Your task to perform on an android device: What's the weather today? Image 0: 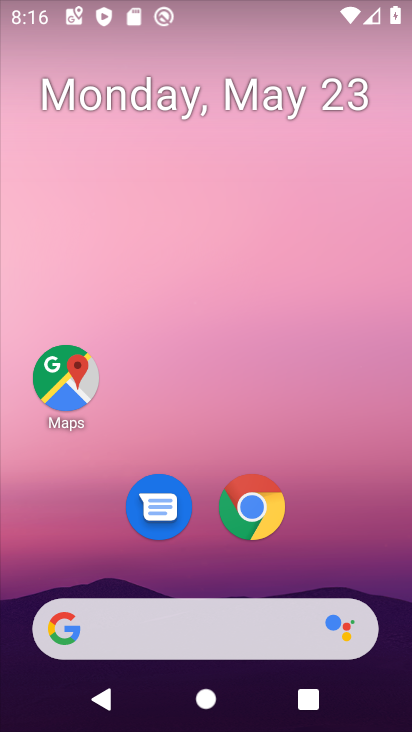
Step 0: drag from (402, 559) to (336, 131)
Your task to perform on an android device: What's the weather today? Image 1: 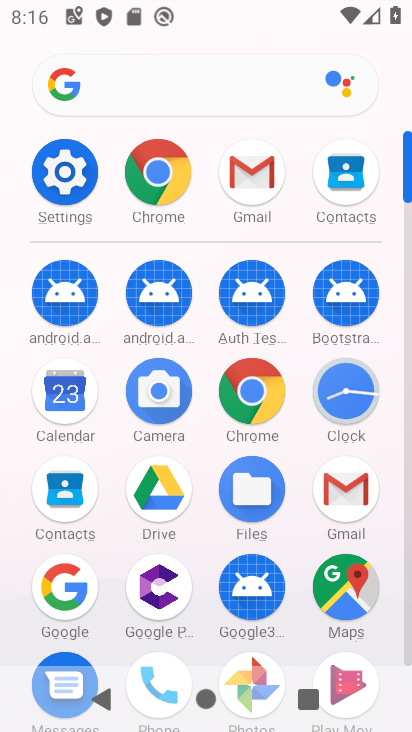
Step 1: click (134, 142)
Your task to perform on an android device: What's the weather today? Image 2: 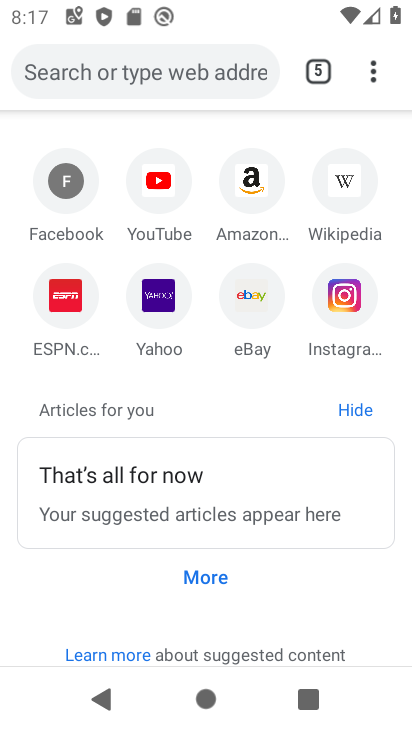
Step 2: click (207, 77)
Your task to perform on an android device: What's the weather today? Image 3: 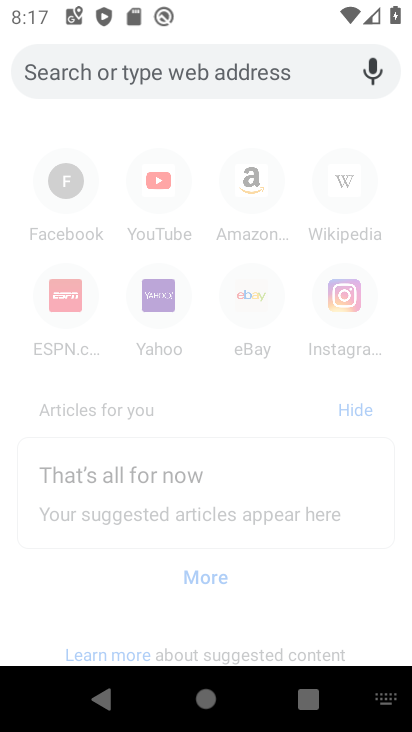
Step 3: type "what's the weather today"
Your task to perform on an android device: What's the weather today? Image 4: 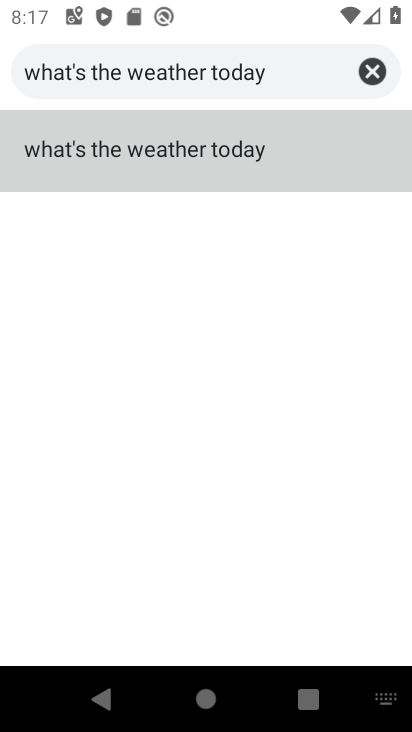
Step 4: click (134, 124)
Your task to perform on an android device: What's the weather today? Image 5: 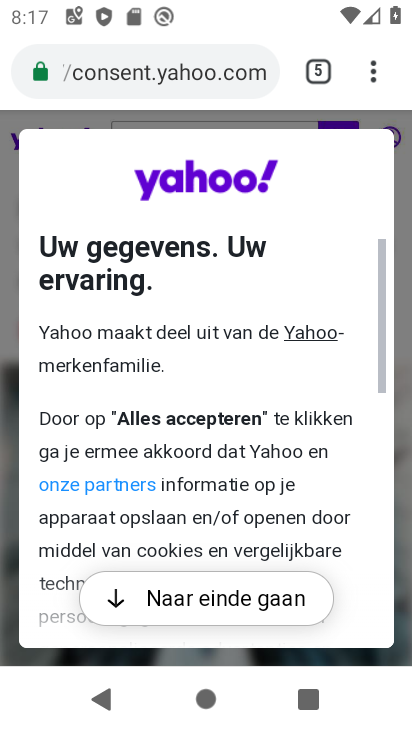
Step 5: task complete